Your task to perform on an android device: toggle notification dots Image 0: 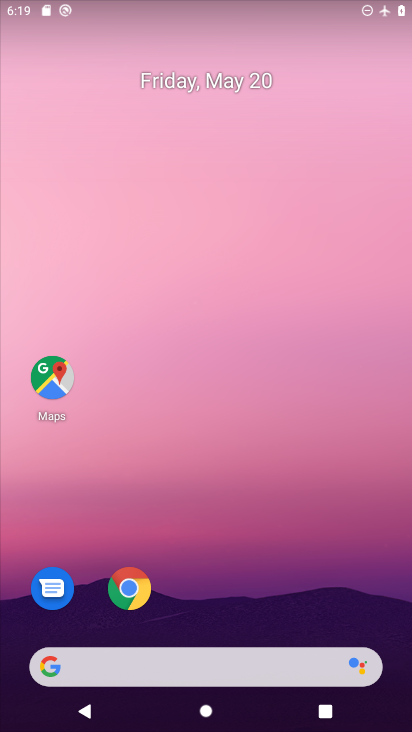
Step 0: drag from (248, 620) to (255, 208)
Your task to perform on an android device: toggle notification dots Image 1: 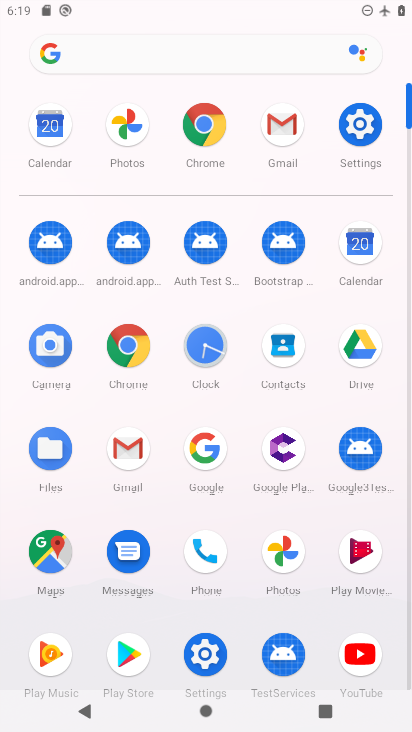
Step 1: click (358, 160)
Your task to perform on an android device: toggle notification dots Image 2: 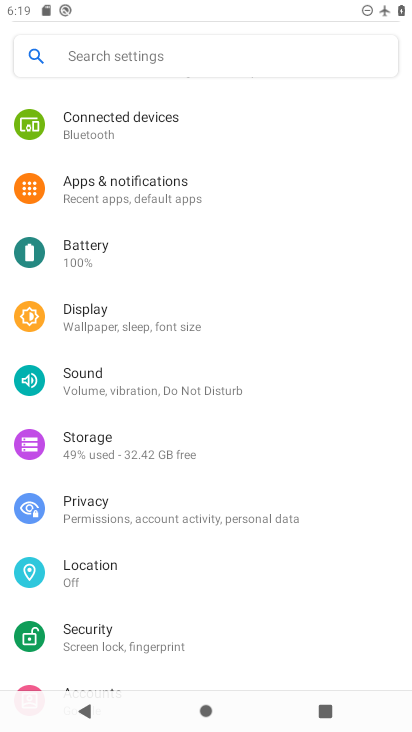
Step 2: click (135, 200)
Your task to perform on an android device: toggle notification dots Image 3: 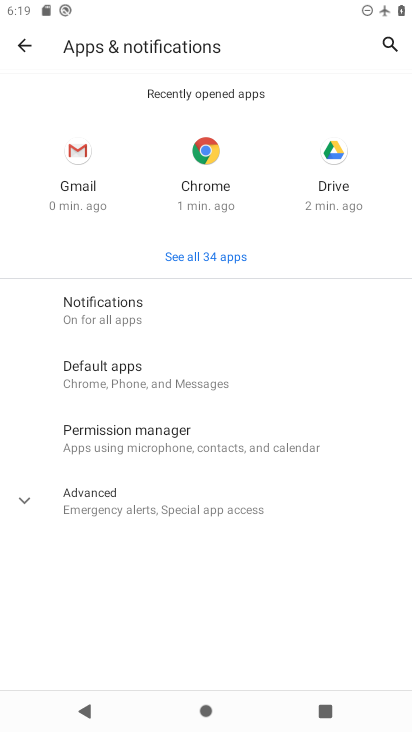
Step 3: click (104, 507)
Your task to perform on an android device: toggle notification dots Image 4: 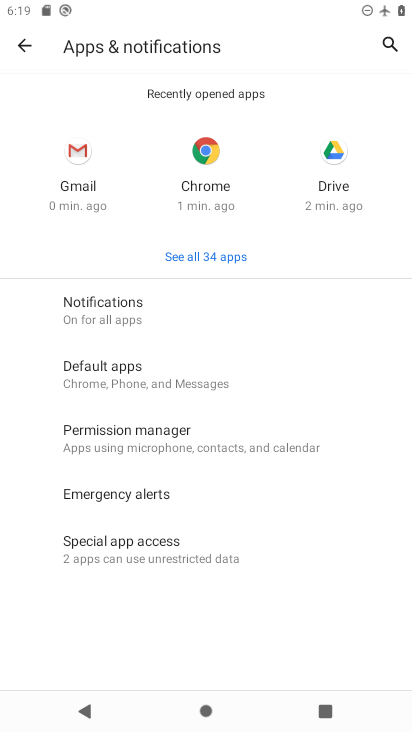
Step 4: click (116, 313)
Your task to perform on an android device: toggle notification dots Image 5: 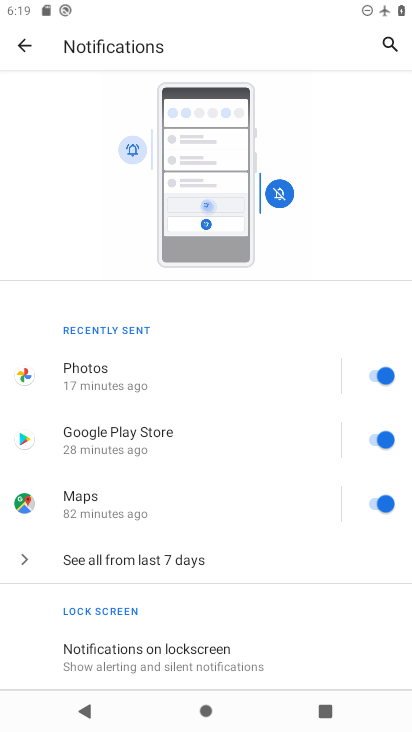
Step 5: drag from (139, 605) to (120, 274)
Your task to perform on an android device: toggle notification dots Image 6: 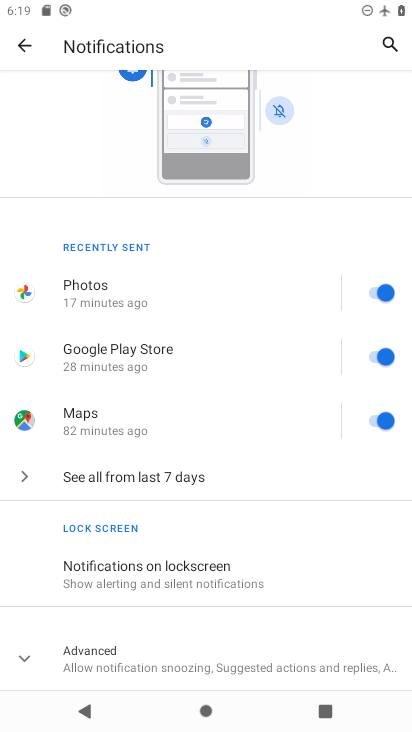
Step 6: click (107, 672)
Your task to perform on an android device: toggle notification dots Image 7: 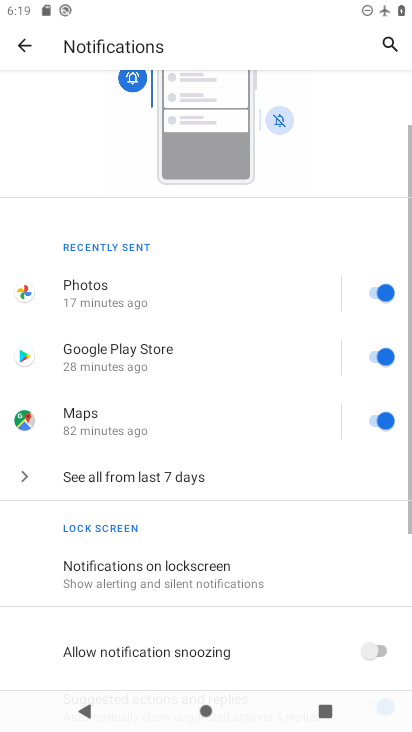
Step 7: drag from (140, 650) to (202, 333)
Your task to perform on an android device: toggle notification dots Image 8: 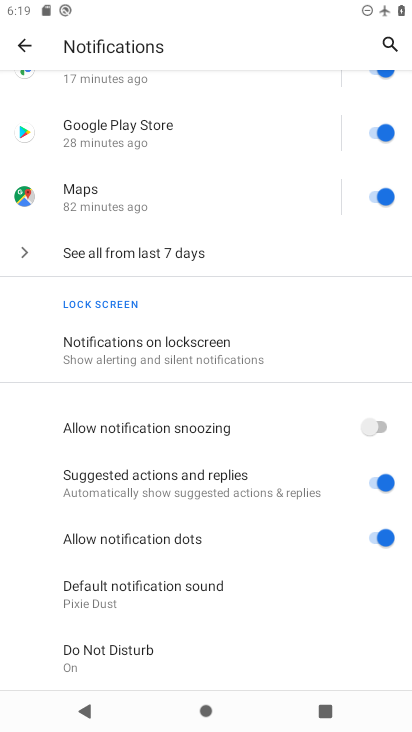
Step 8: click (377, 543)
Your task to perform on an android device: toggle notification dots Image 9: 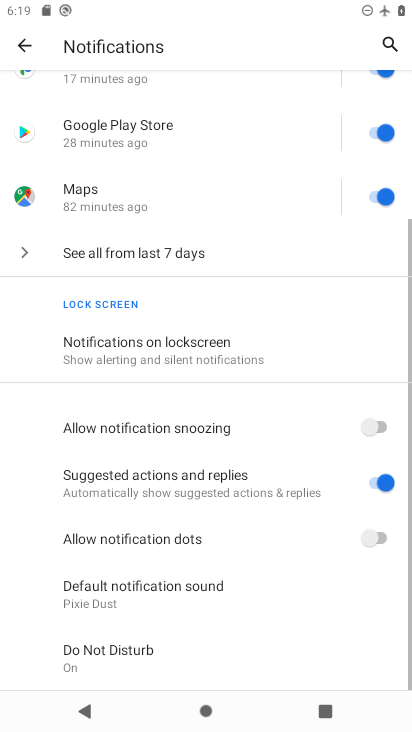
Step 9: task complete